Your task to perform on an android device: Show me popular games on the Play Store Image 0: 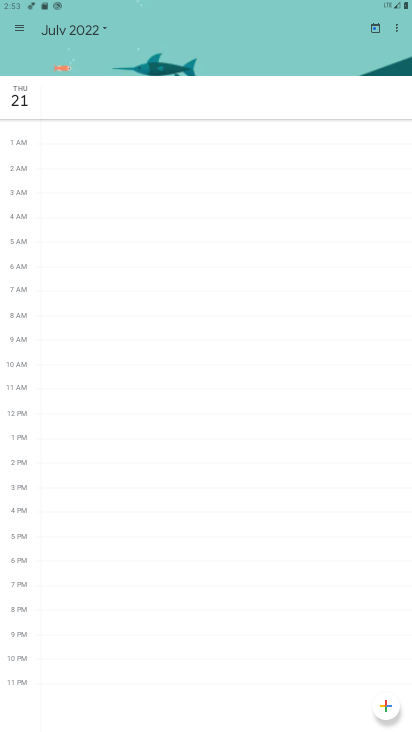
Step 0: press home button
Your task to perform on an android device: Show me popular games on the Play Store Image 1: 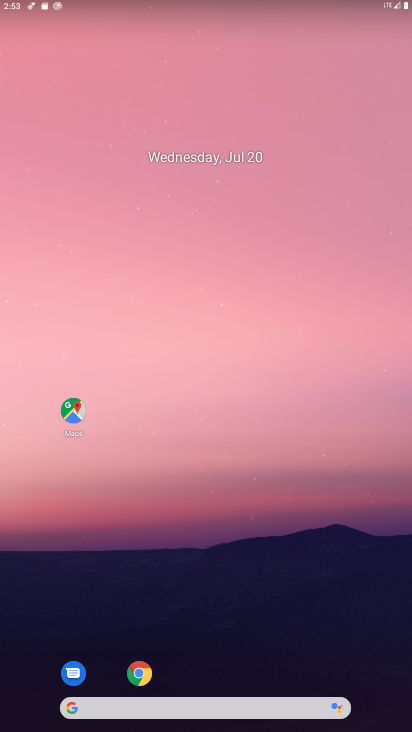
Step 1: drag from (218, 639) to (313, 1)
Your task to perform on an android device: Show me popular games on the Play Store Image 2: 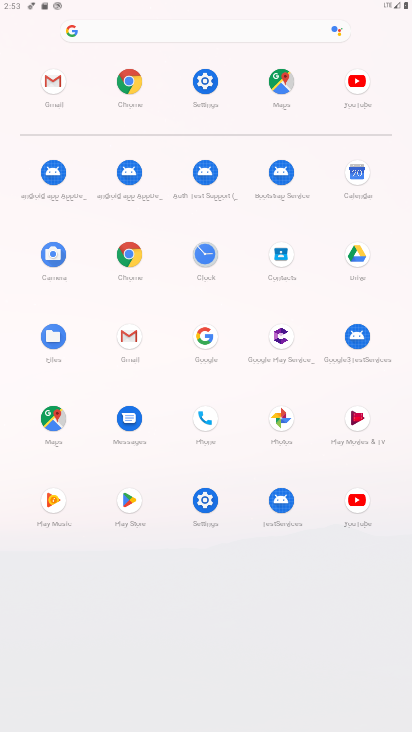
Step 2: click (122, 508)
Your task to perform on an android device: Show me popular games on the Play Store Image 3: 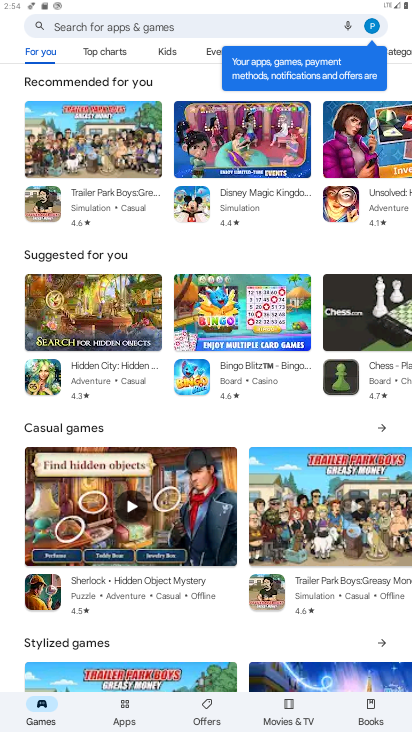
Step 3: click (98, 53)
Your task to perform on an android device: Show me popular games on the Play Store Image 4: 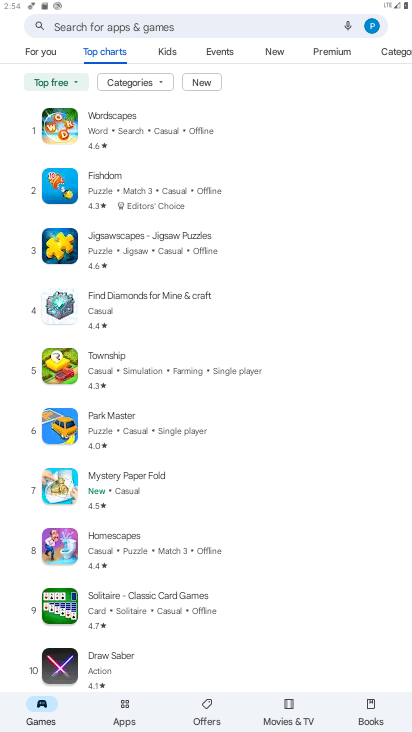
Step 4: task complete